Your task to perform on an android device: turn off notifications settings in the gmail app Image 0: 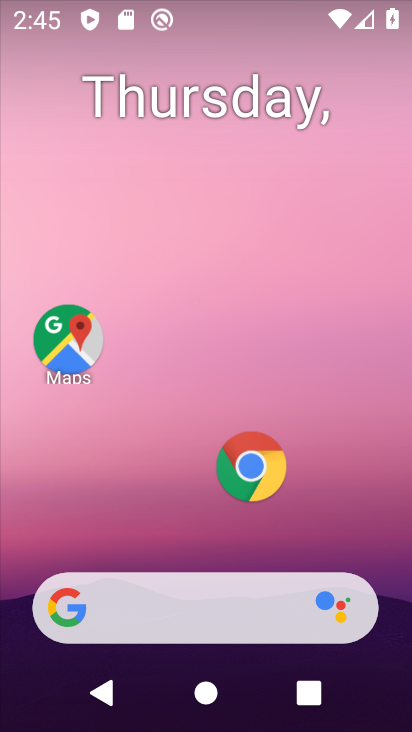
Step 0: drag from (178, 456) to (178, 139)
Your task to perform on an android device: turn off notifications settings in the gmail app Image 1: 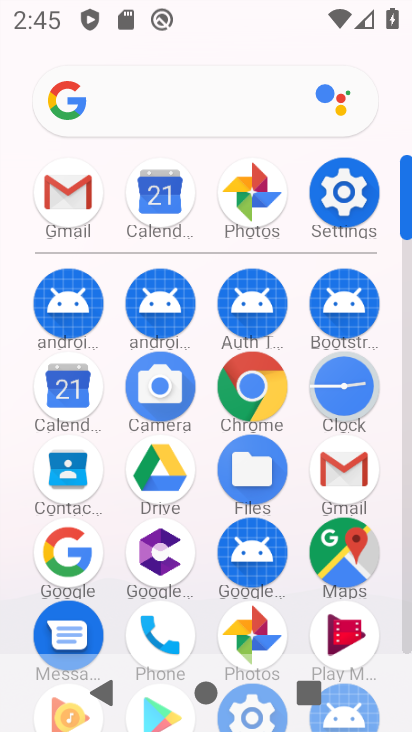
Step 1: click (78, 220)
Your task to perform on an android device: turn off notifications settings in the gmail app Image 2: 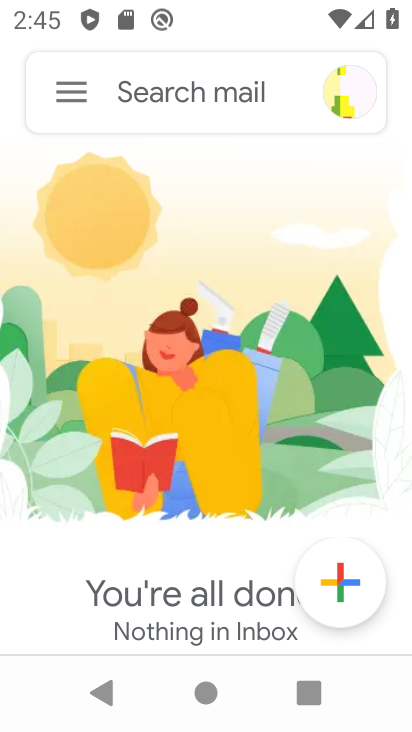
Step 2: click (58, 92)
Your task to perform on an android device: turn off notifications settings in the gmail app Image 3: 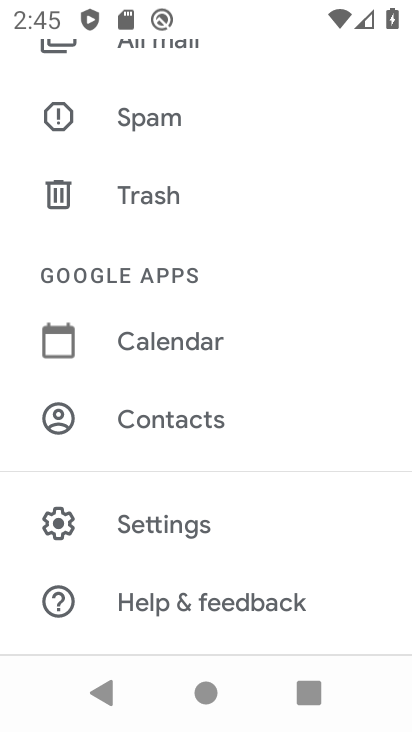
Step 3: click (171, 537)
Your task to perform on an android device: turn off notifications settings in the gmail app Image 4: 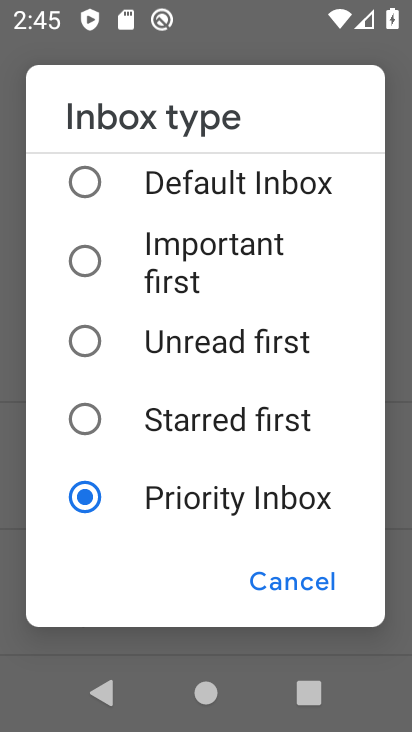
Step 4: click (290, 590)
Your task to perform on an android device: turn off notifications settings in the gmail app Image 5: 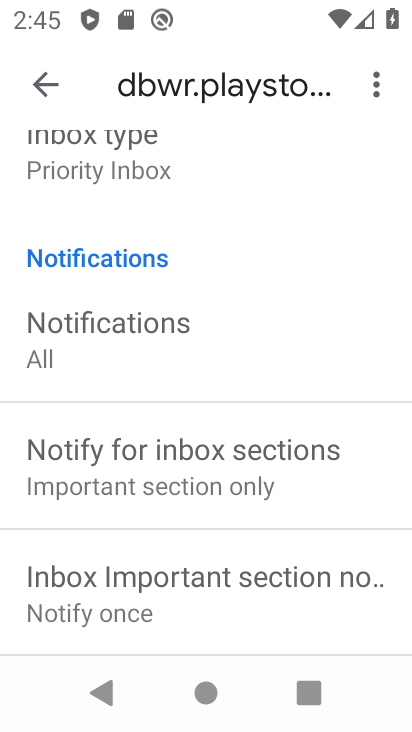
Step 5: drag from (224, 557) to (231, 271)
Your task to perform on an android device: turn off notifications settings in the gmail app Image 6: 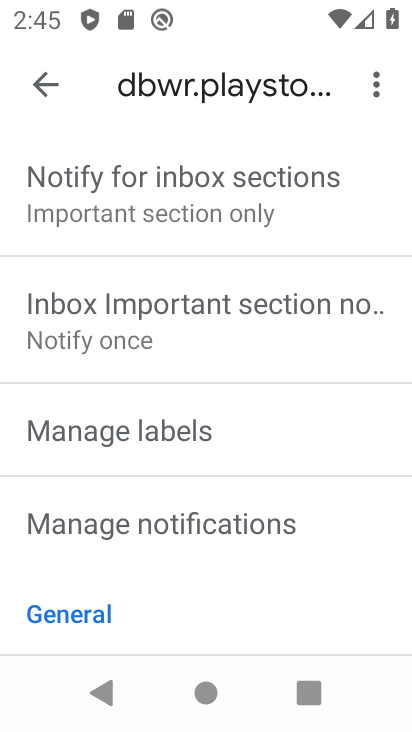
Step 6: click (223, 533)
Your task to perform on an android device: turn off notifications settings in the gmail app Image 7: 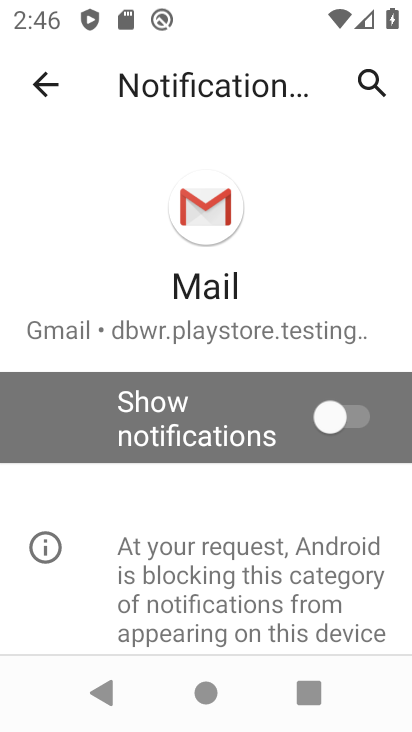
Step 7: task complete